Your task to perform on an android device: check storage Image 0: 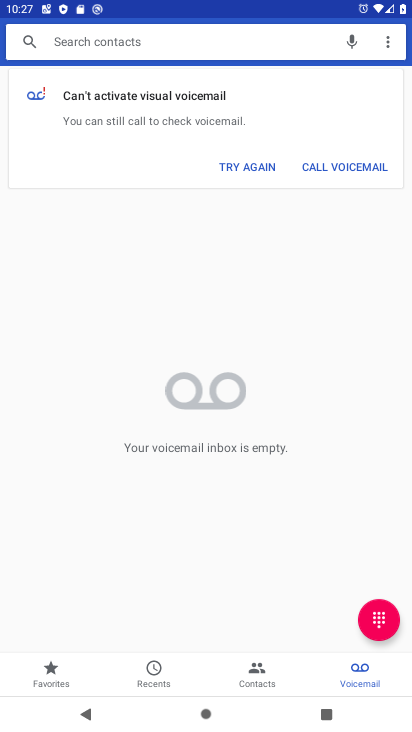
Step 0: press back button
Your task to perform on an android device: check storage Image 1: 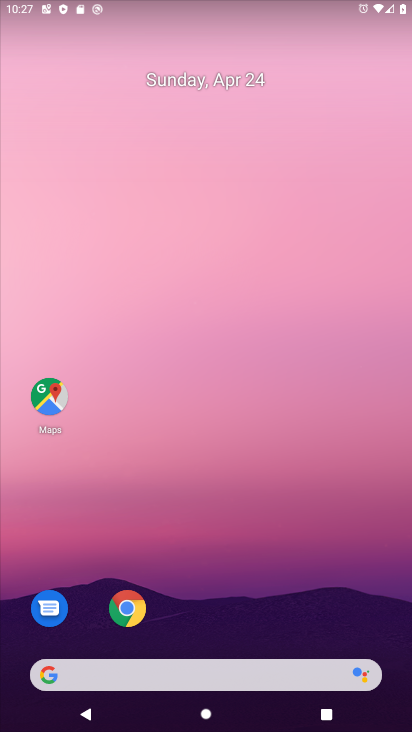
Step 1: drag from (314, 554) to (214, 19)
Your task to perform on an android device: check storage Image 2: 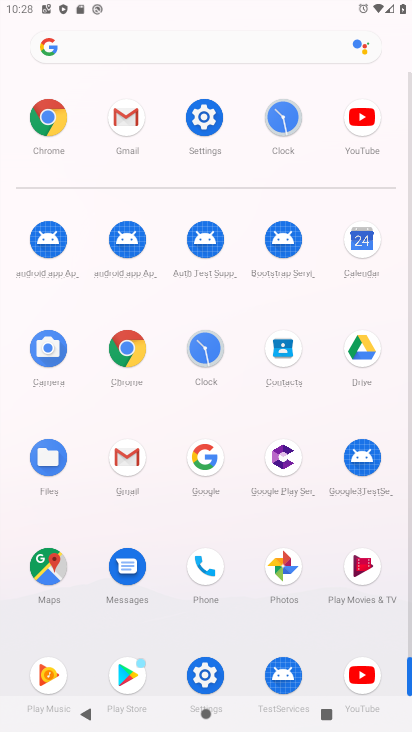
Step 2: click (205, 676)
Your task to perform on an android device: check storage Image 3: 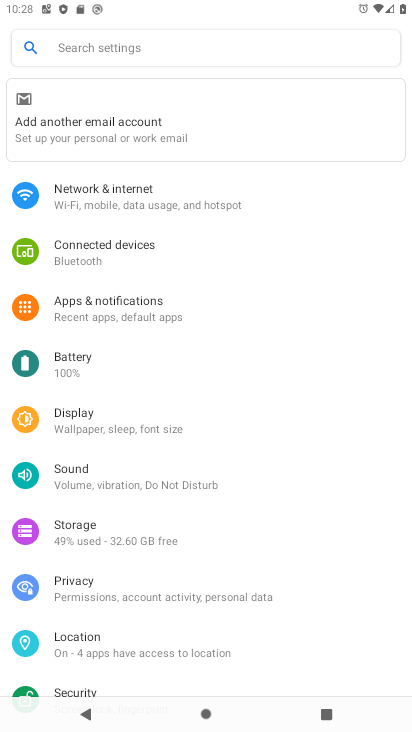
Step 3: drag from (186, 665) to (228, 150)
Your task to perform on an android device: check storage Image 4: 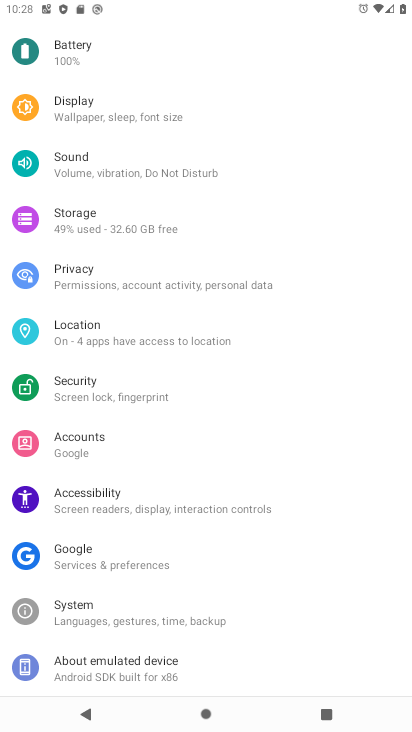
Step 4: drag from (194, 523) to (248, 90)
Your task to perform on an android device: check storage Image 5: 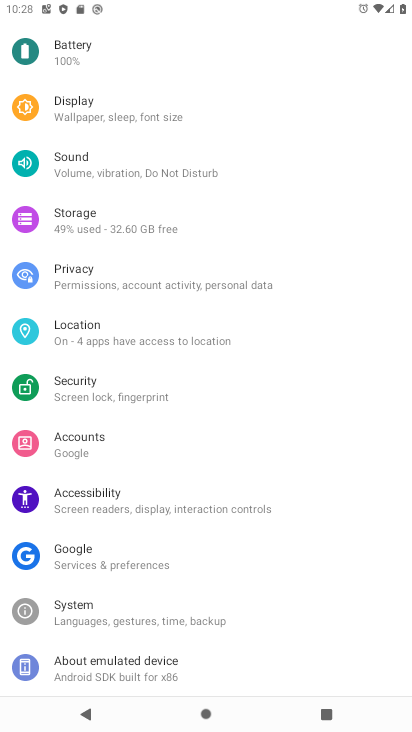
Step 5: click (94, 223)
Your task to perform on an android device: check storage Image 6: 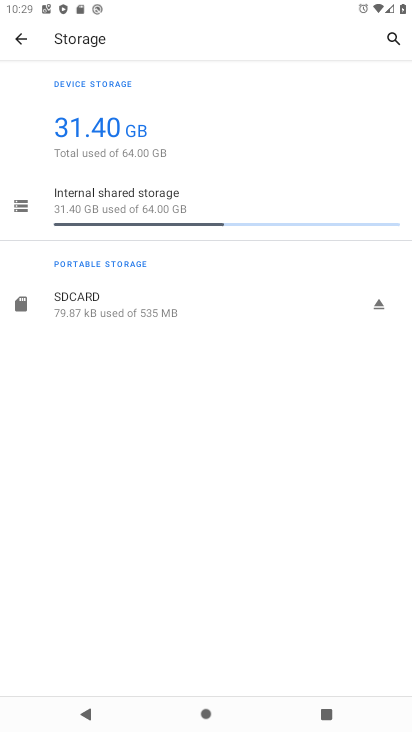
Step 6: task complete